Your task to perform on an android device: check google app version Image 0: 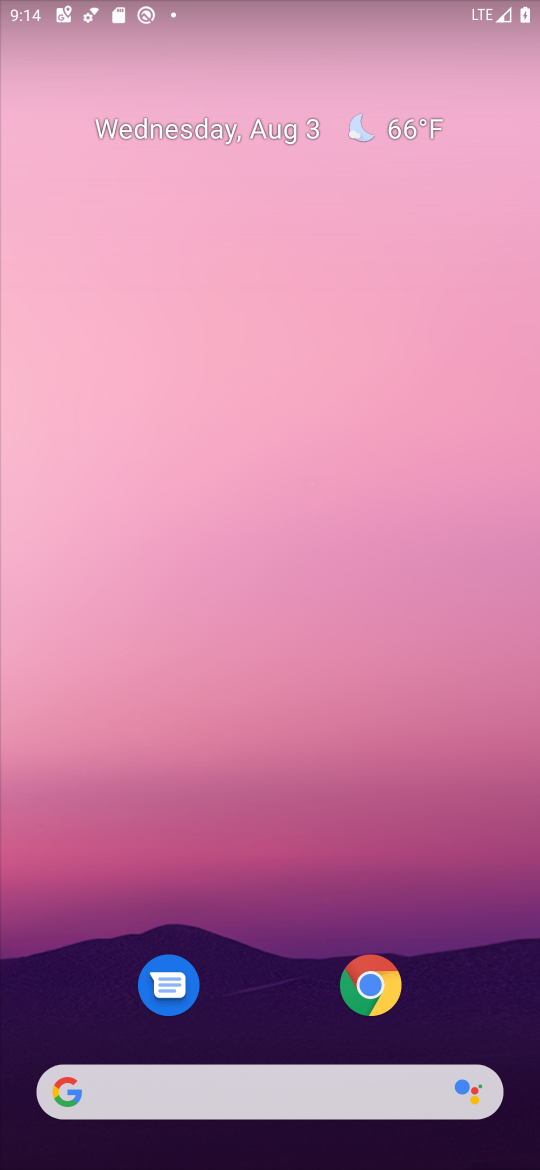
Step 0: drag from (269, 1010) to (275, 317)
Your task to perform on an android device: check google app version Image 1: 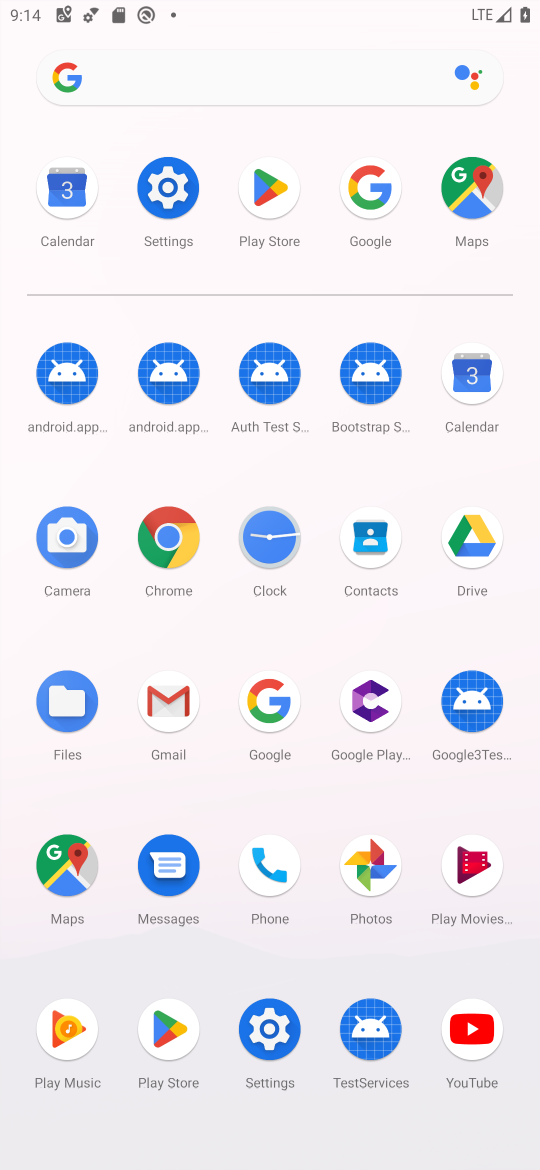
Step 1: click (382, 203)
Your task to perform on an android device: check google app version Image 2: 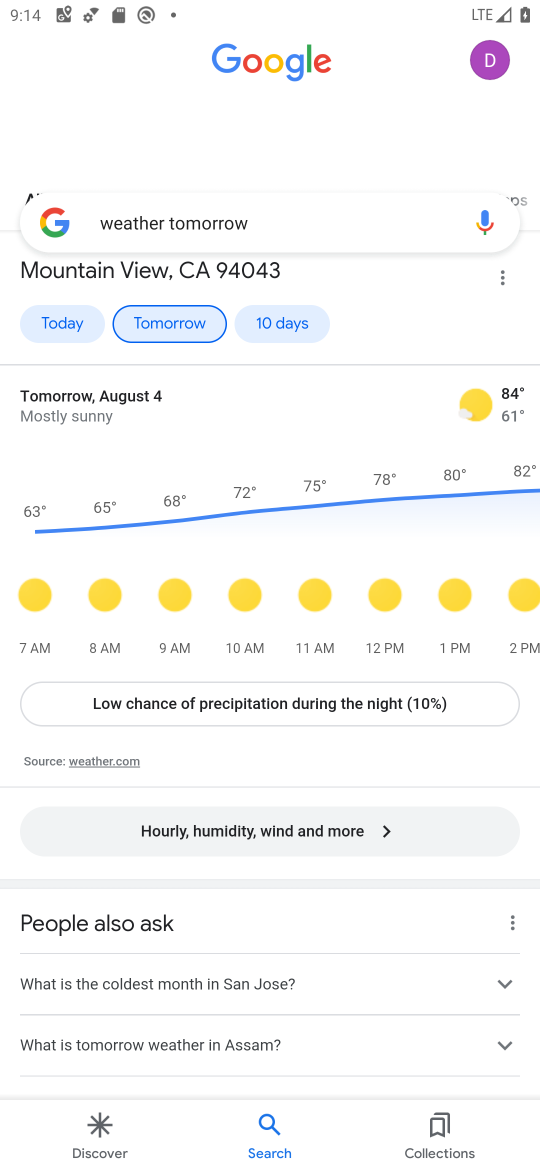
Step 2: click (489, 62)
Your task to perform on an android device: check google app version Image 3: 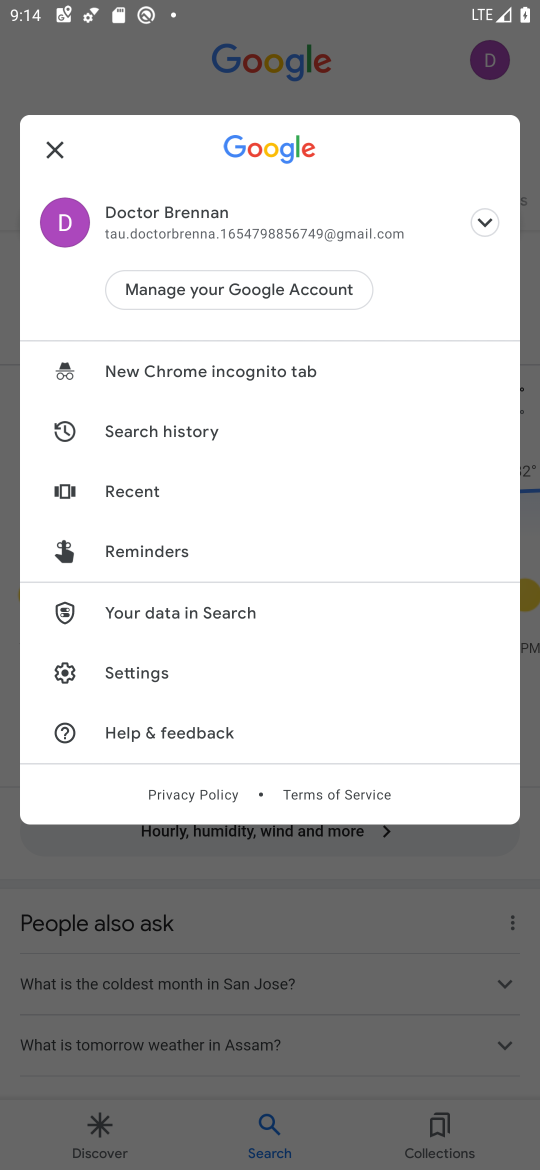
Step 3: click (128, 683)
Your task to perform on an android device: check google app version Image 4: 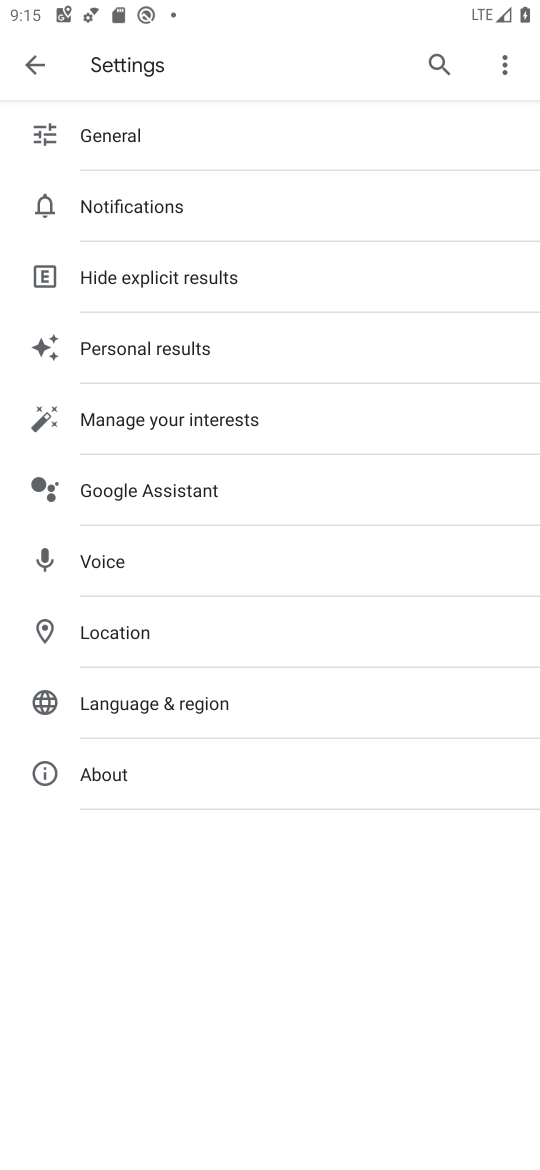
Step 4: click (196, 759)
Your task to perform on an android device: check google app version Image 5: 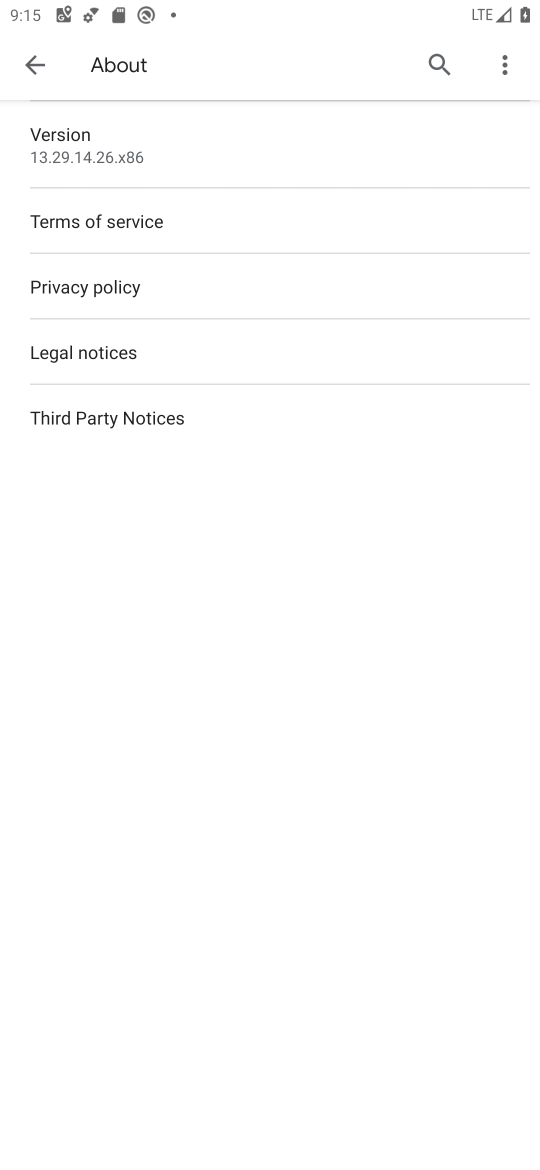
Step 5: click (210, 175)
Your task to perform on an android device: check google app version Image 6: 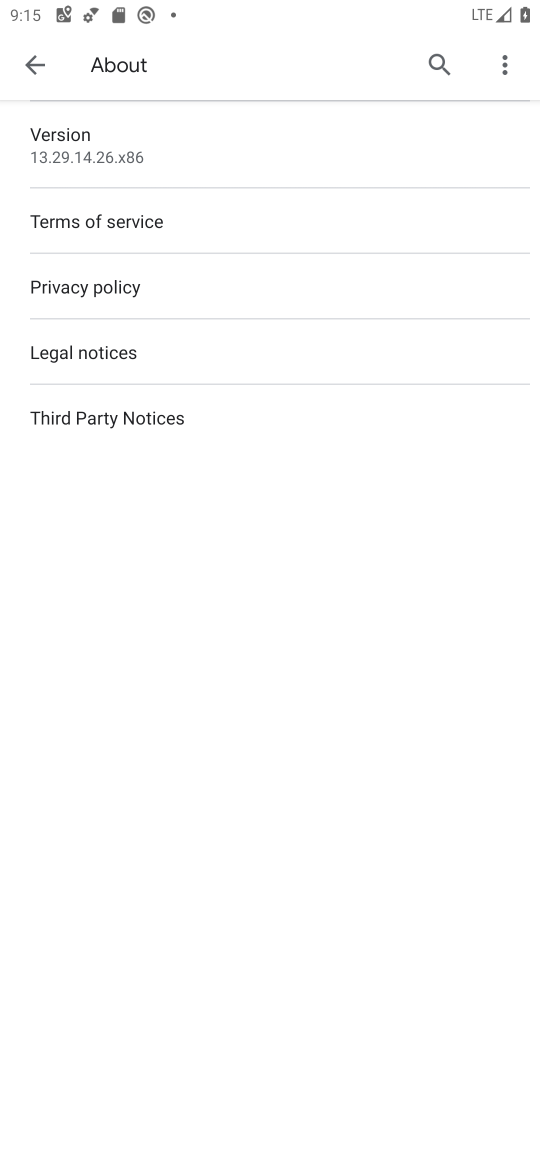
Step 6: task complete